Your task to perform on an android device: Go to notification settings Image 0: 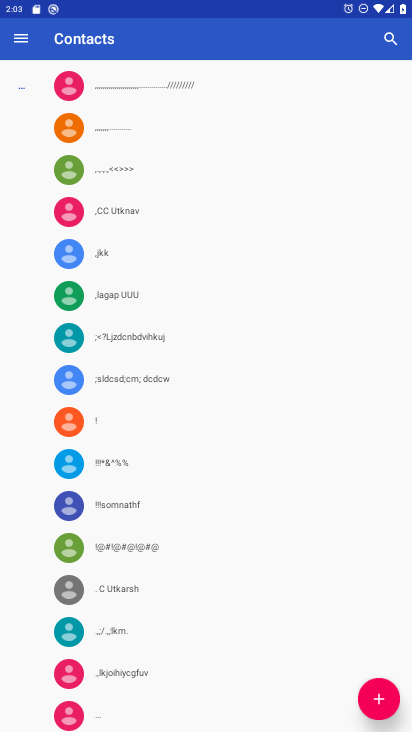
Step 0: press home button
Your task to perform on an android device: Go to notification settings Image 1: 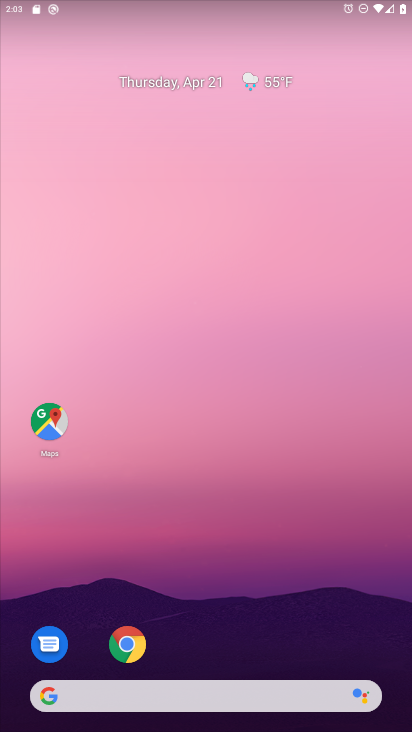
Step 1: drag from (241, 542) to (231, 223)
Your task to perform on an android device: Go to notification settings Image 2: 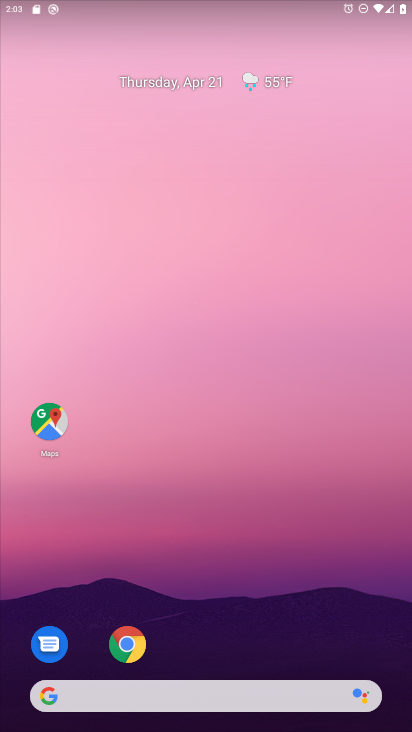
Step 2: drag from (254, 520) to (242, 2)
Your task to perform on an android device: Go to notification settings Image 3: 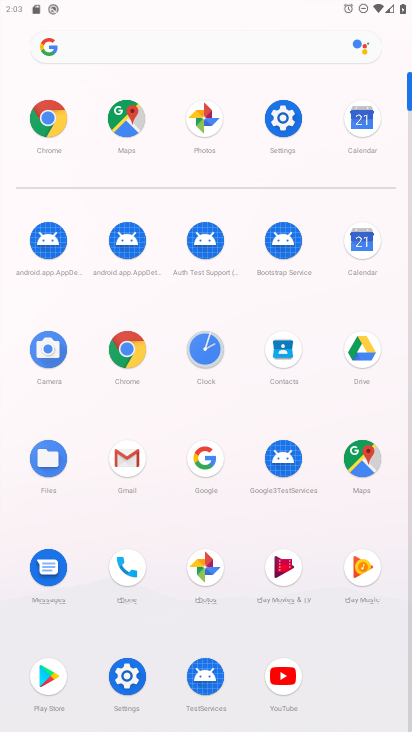
Step 3: click (286, 127)
Your task to perform on an android device: Go to notification settings Image 4: 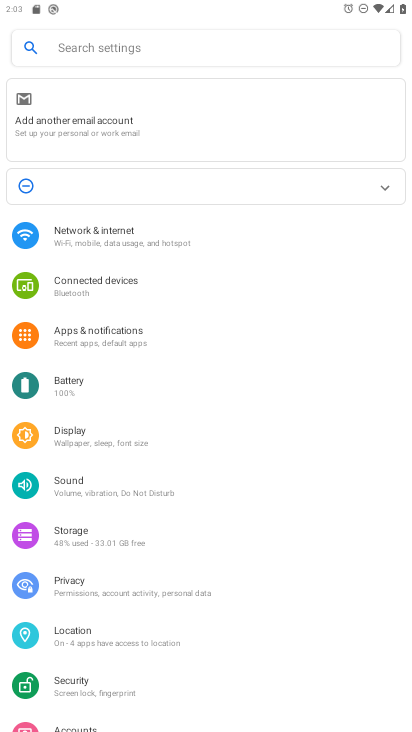
Step 4: click (245, 333)
Your task to perform on an android device: Go to notification settings Image 5: 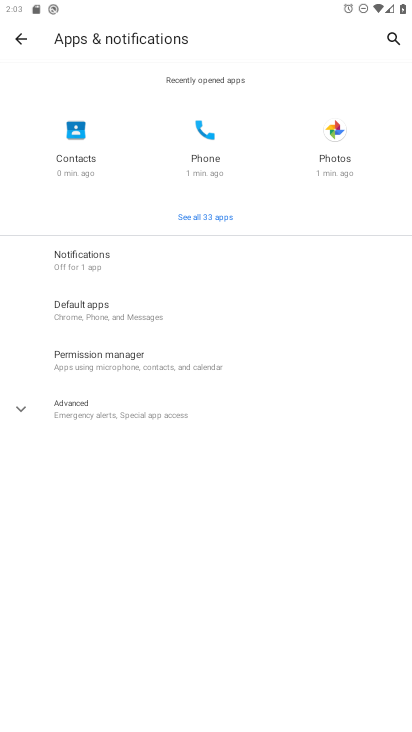
Step 5: click (218, 271)
Your task to perform on an android device: Go to notification settings Image 6: 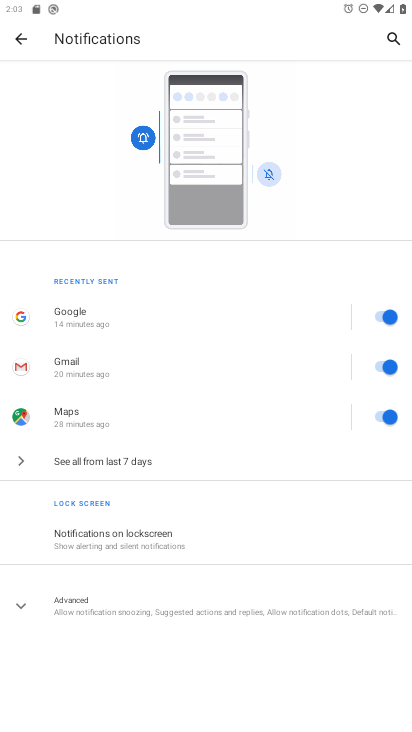
Step 6: click (224, 610)
Your task to perform on an android device: Go to notification settings Image 7: 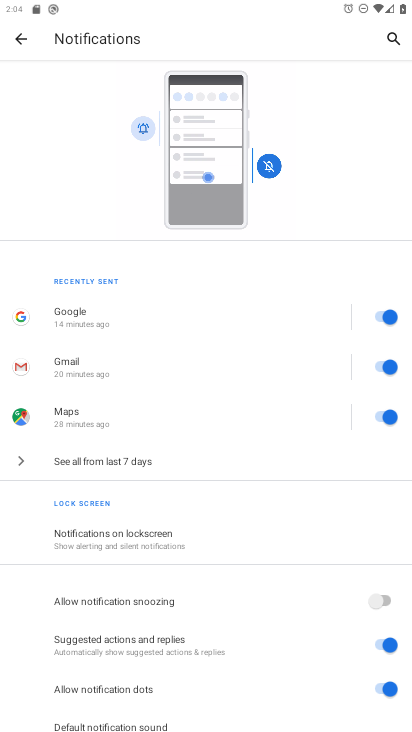
Step 7: task complete